Your task to perform on an android device: Clear the cart on walmart. Search for "razer kraken" on walmart, select the first entry, and add it to the cart. Image 0: 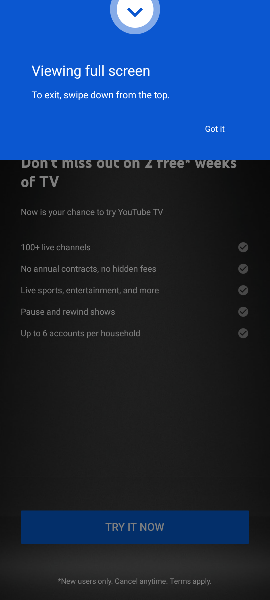
Step 0: press home button
Your task to perform on an android device: Clear the cart on walmart. Search for "razer kraken" on walmart, select the first entry, and add it to the cart. Image 1: 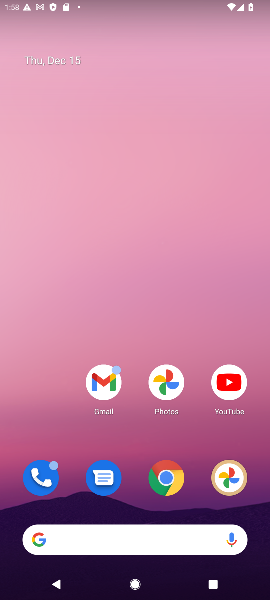
Step 1: click (166, 480)
Your task to perform on an android device: Clear the cart on walmart. Search for "razer kraken" on walmart, select the first entry, and add it to the cart. Image 2: 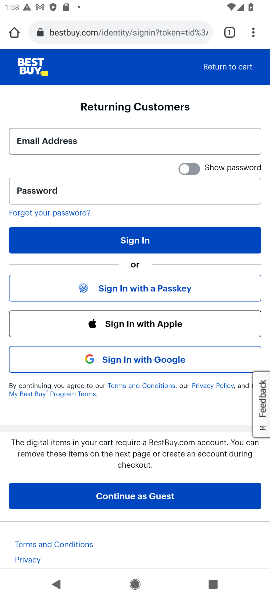
Step 2: click (109, 30)
Your task to perform on an android device: Clear the cart on walmart. Search for "razer kraken" on walmart, select the first entry, and add it to the cart. Image 3: 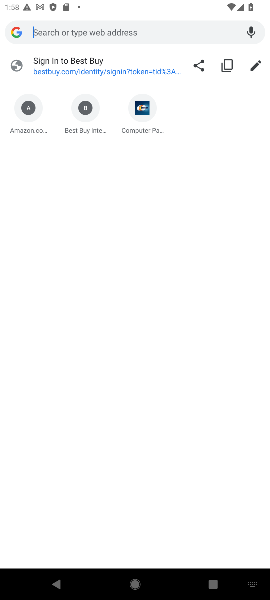
Step 3: type "walmart.com"
Your task to perform on an android device: Clear the cart on walmart. Search for "razer kraken" on walmart, select the first entry, and add it to the cart. Image 4: 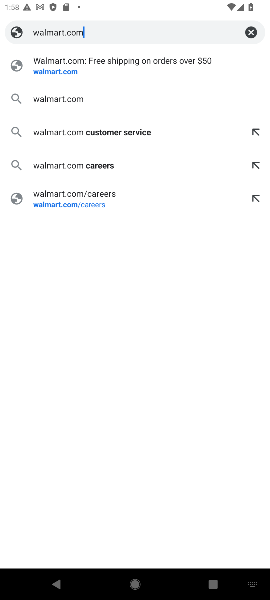
Step 4: click (51, 69)
Your task to perform on an android device: Clear the cart on walmart. Search for "razer kraken" on walmart, select the first entry, and add it to the cart. Image 5: 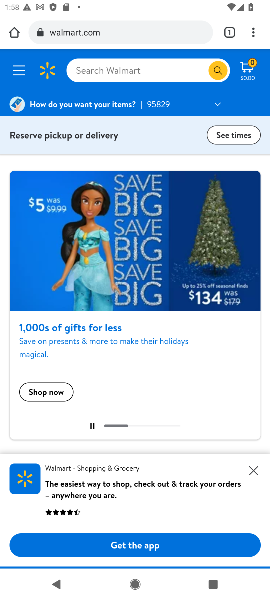
Step 5: click (248, 69)
Your task to perform on an android device: Clear the cart on walmart. Search for "razer kraken" on walmart, select the first entry, and add it to the cart. Image 6: 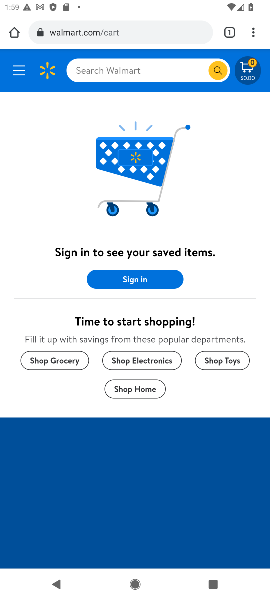
Step 6: click (91, 66)
Your task to perform on an android device: Clear the cart on walmart. Search for "razer kraken" on walmart, select the first entry, and add it to the cart. Image 7: 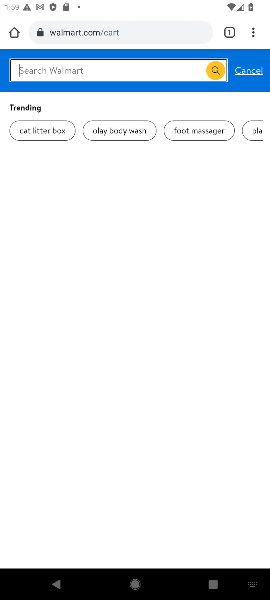
Step 7: type "razer kraken"
Your task to perform on an android device: Clear the cart on walmart. Search for "razer kraken" on walmart, select the first entry, and add it to the cart. Image 8: 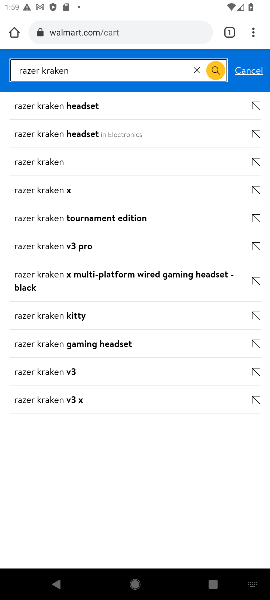
Step 8: click (43, 164)
Your task to perform on an android device: Clear the cart on walmart. Search for "razer kraken" on walmart, select the first entry, and add it to the cart. Image 9: 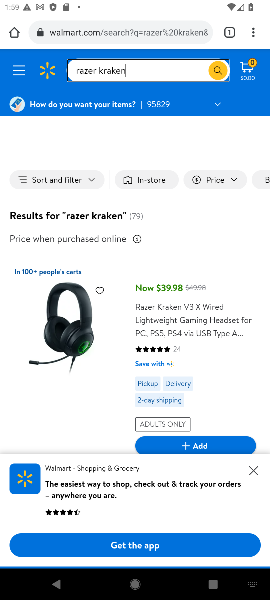
Step 9: drag from (195, 373) to (198, 280)
Your task to perform on an android device: Clear the cart on walmart. Search for "razer kraken" on walmart, select the first entry, and add it to the cart. Image 10: 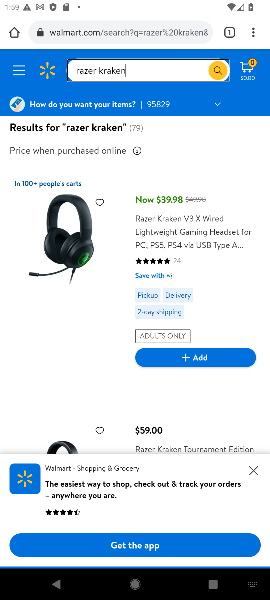
Step 10: click (205, 360)
Your task to perform on an android device: Clear the cart on walmart. Search for "razer kraken" on walmart, select the first entry, and add it to the cart. Image 11: 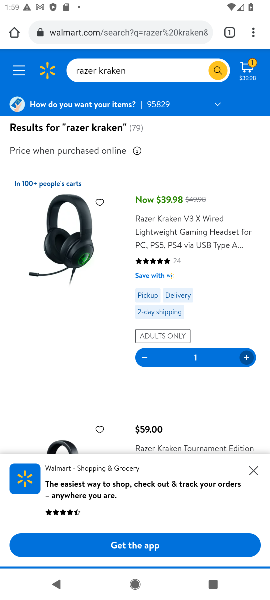
Step 11: task complete